Your task to perform on an android device: Show me popular games on the Play Store Image 0: 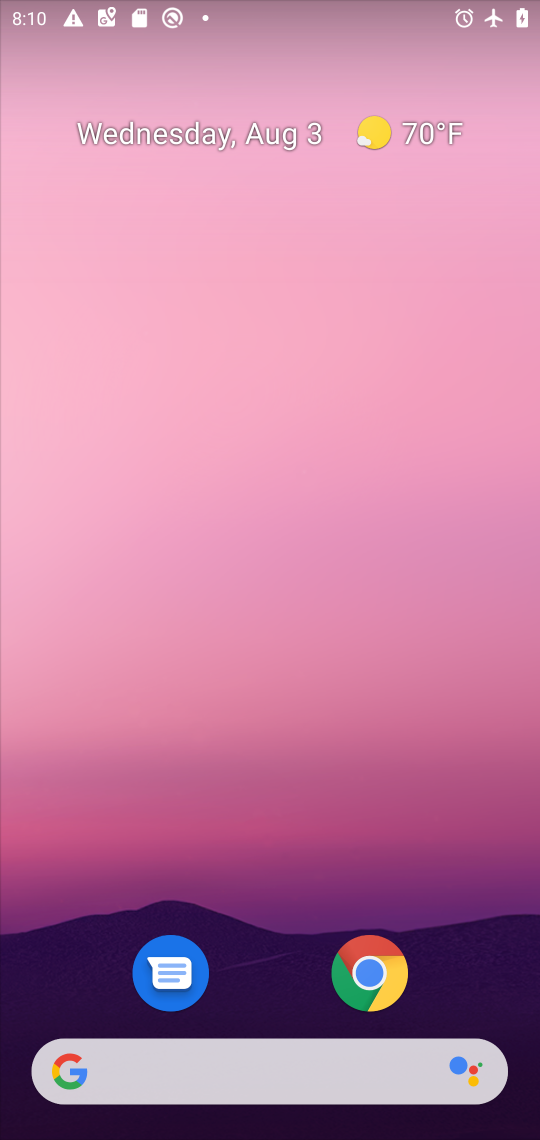
Step 0: drag from (275, 995) to (339, 58)
Your task to perform on an android device: Show me popular games on the Play Store Image 1: 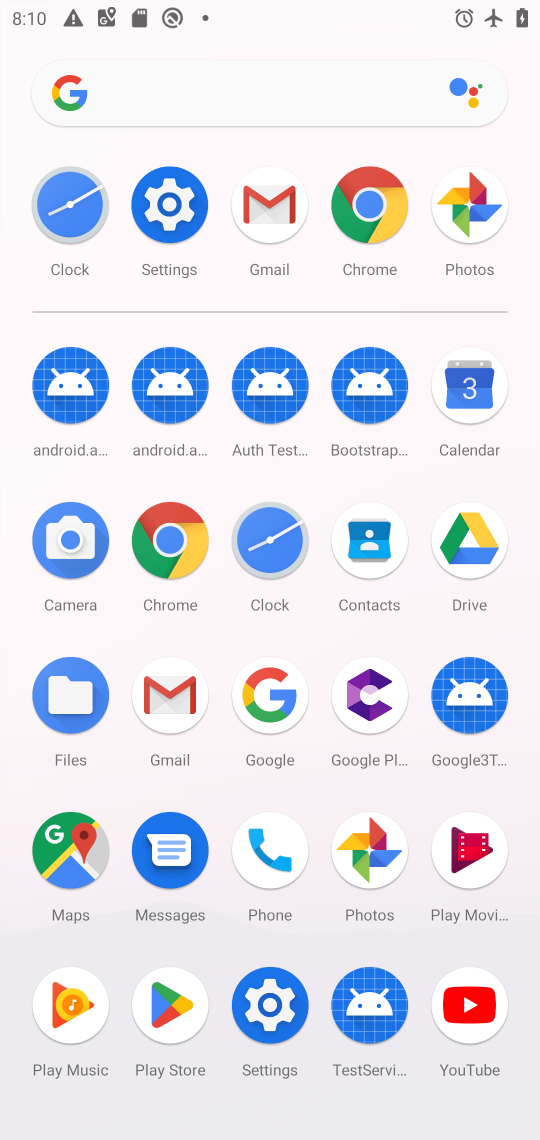
Step 1: click (174, 993)
Your task to perform on an android device: Show me popular games on the Play Store Image 2: 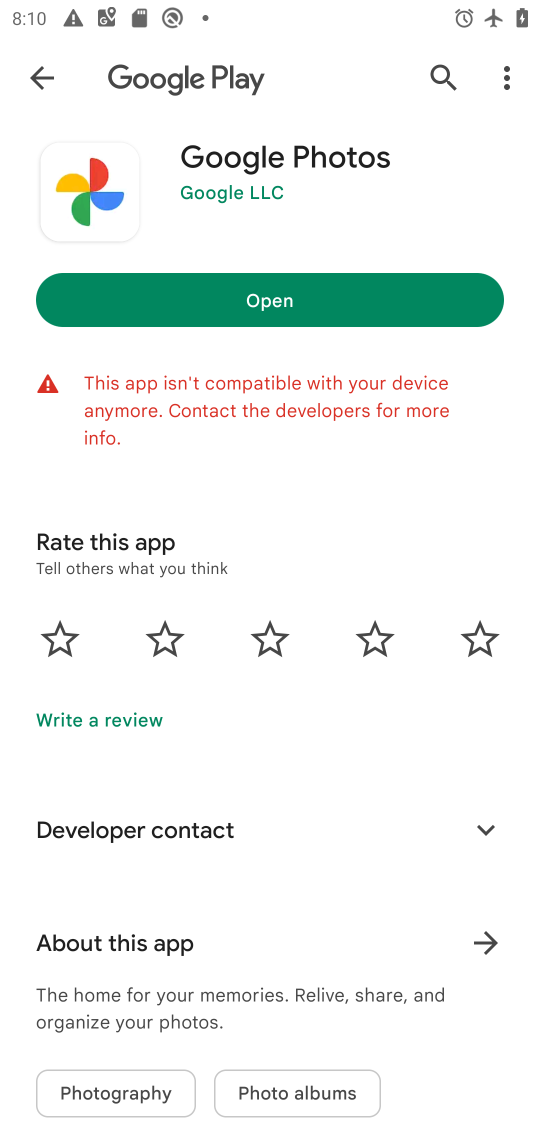
Step 2: click (42, 76)
Your task to perform on an android device: Show me popular games on the Play Store Image 3: 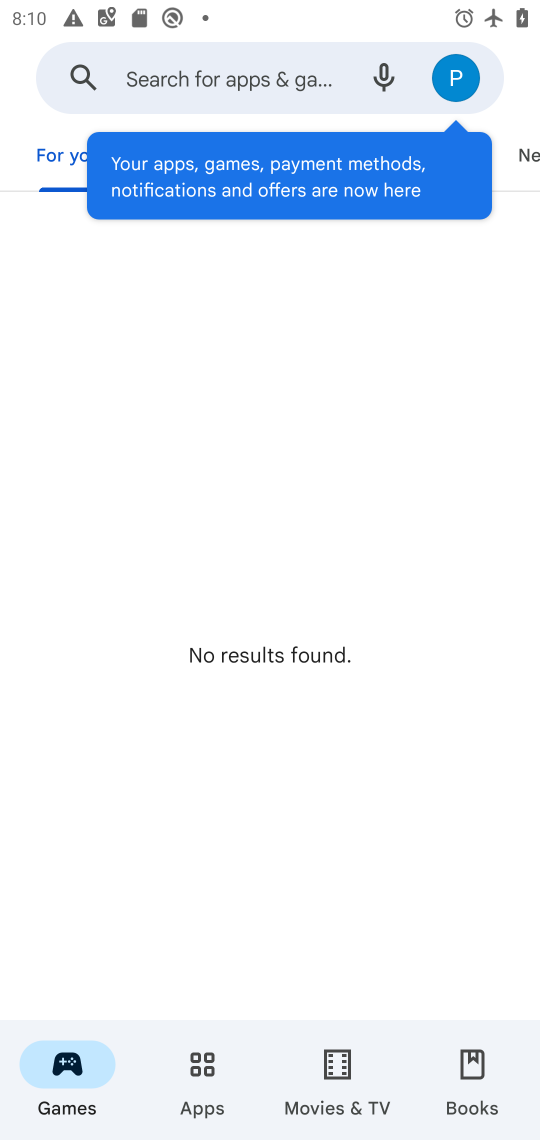
Step 3: drag from (290, 352) to (269, 854)
Your task to perform on an android device: Show me popular games on the Play Store Image 4: 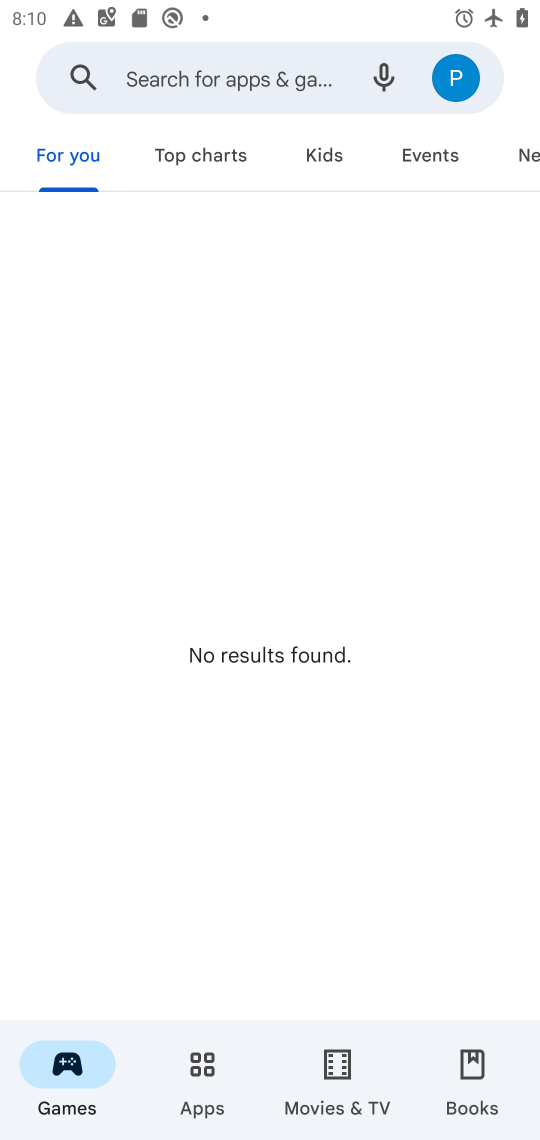
Step 4: click (192, 1069)
Your task to perform on an android device: Show me popular games on the Play Store Image 5: 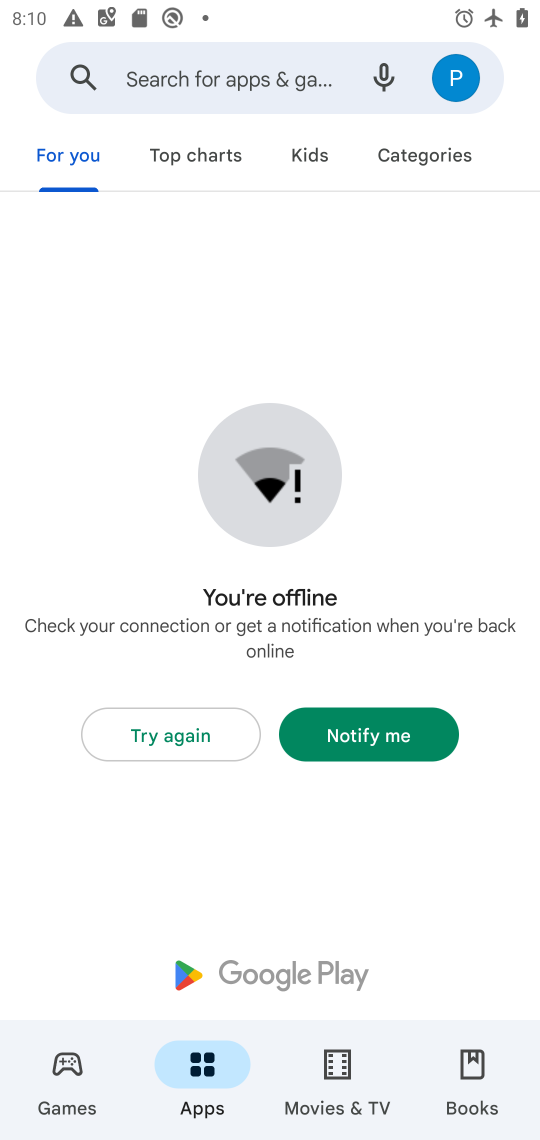
Step 5: click (58, 1061)
Your task to perform on an android device: Show me popular games on the Play Store Image 6: 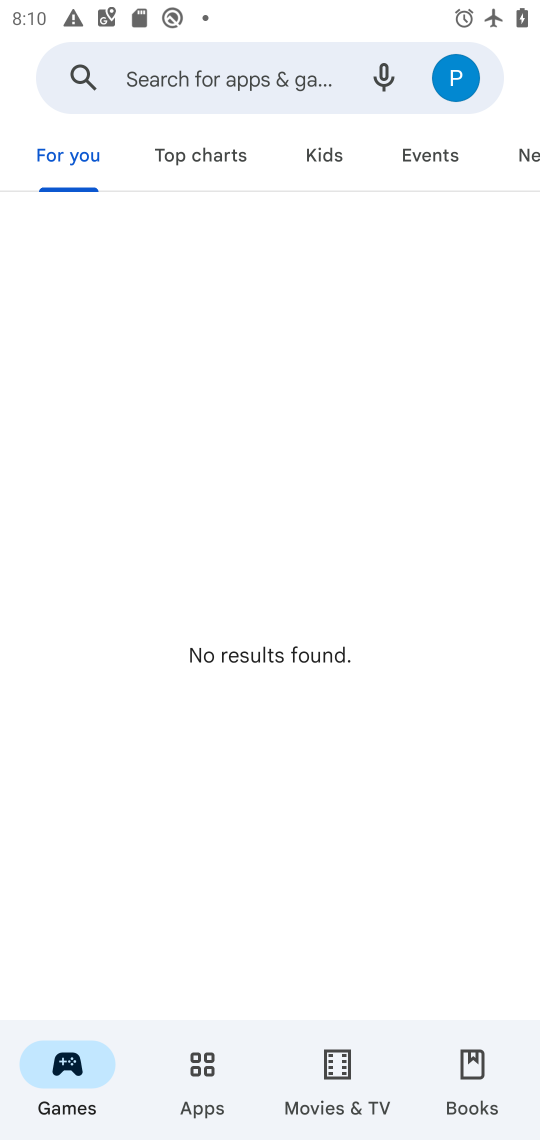
Step 6: task complete